Your task to perform on an android device: open sync settings in chrome Image 0: 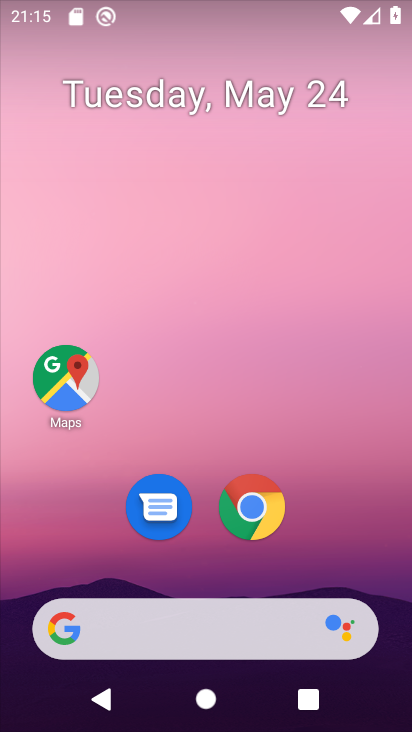
Step 0: drag from (197, 561) to (203, 122)
Your task to perform on an android device: open sync settings in chrome Image 1: 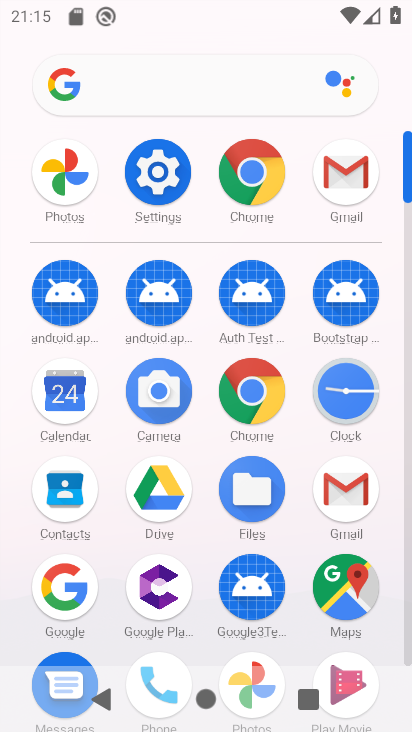
Step 1: click (246, 372)
Your task to perform on an android device: open sync settings in chrome Image 2: 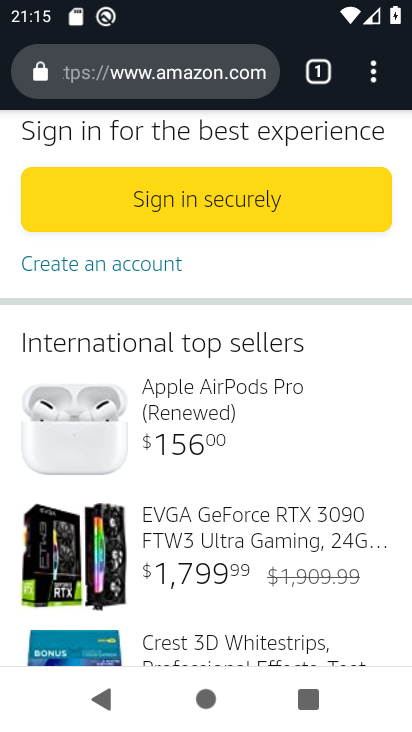
Step 2: drag from (250, 285) to (318, 592)
Your task to perform on an android device: open sync settings in chrome Image 3: 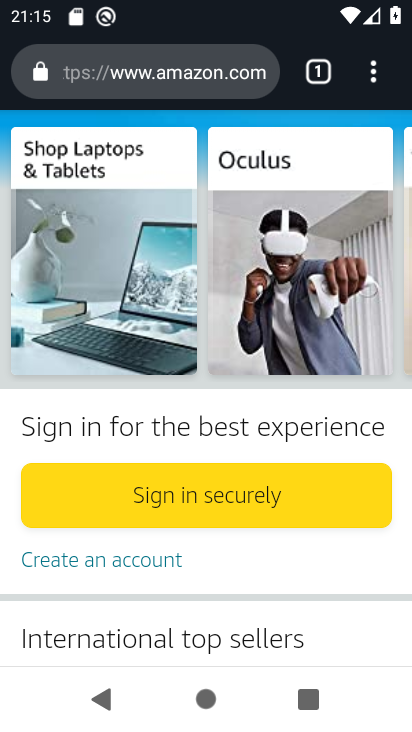
Step 3: click (376, 85)
Your task to perform on an android device: open sync settings in chrome Image 4: 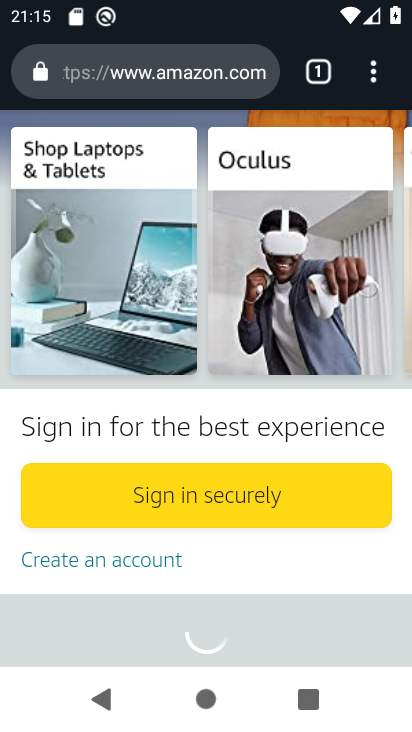
Step 4: click (375, 68)
Your task to perform on an android device: open sync settings in chrome Image 5: 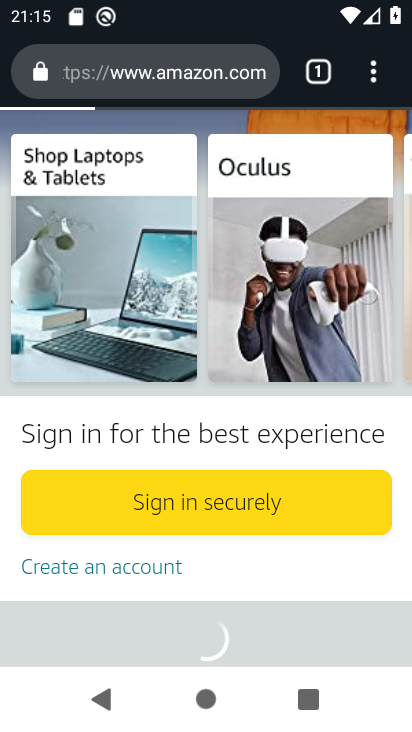
Step 5: click (375, 68)
Your task to perform on an android device: open sync settings in chrome Image 6: 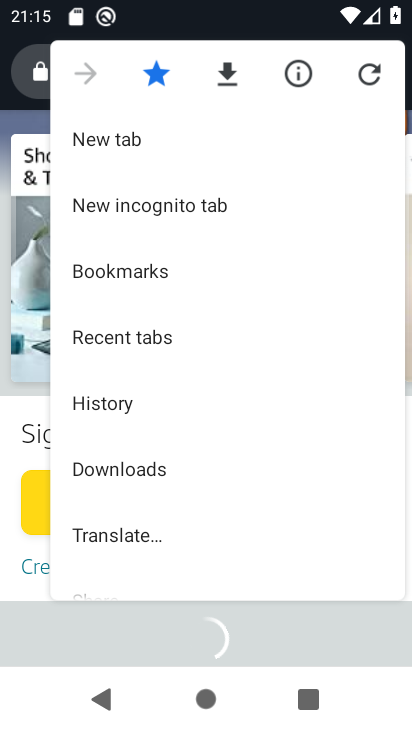
Step 6: drag from (199, 514) to (282, 204)
Your task to perform on an android device: open sync settings in chrome Image 7: 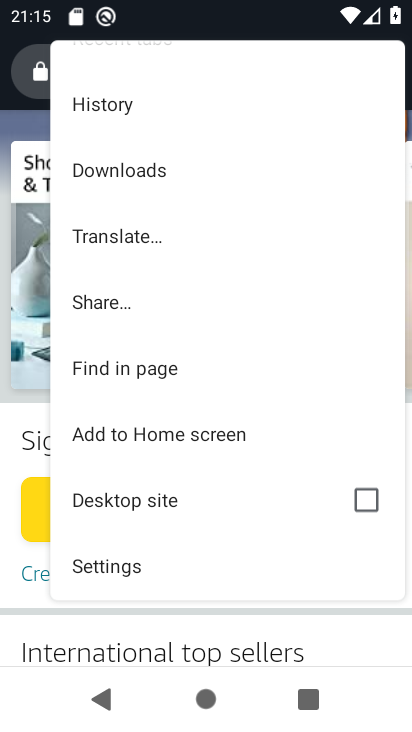
Step 7: click (151, 557)
Your task to perform on an android device: open sync settings in chrome Image 8: 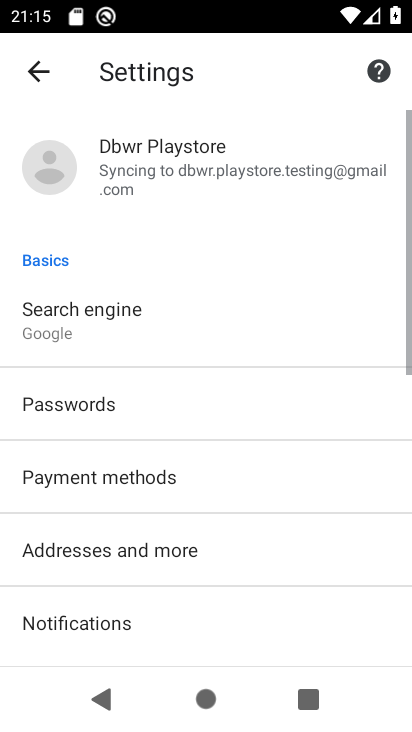
Step 8: drag from (273, 559) to (377, 97)
Your task to perform on an android device: open sync settings in chrome Image 9: 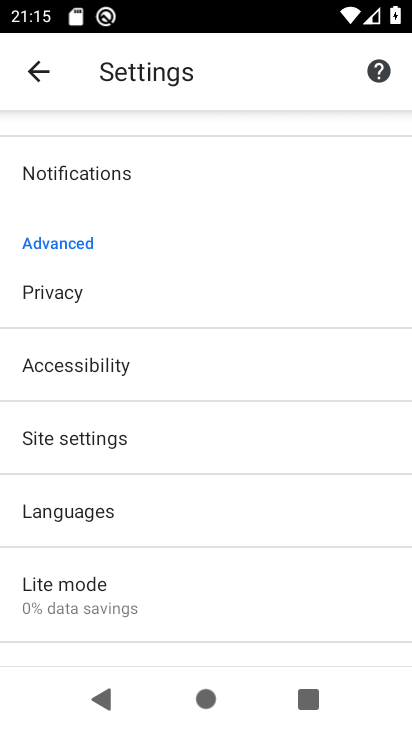
Step 9: click (112, 424)
Your task to perform on an android device: open sync settings in chrome Image 10: 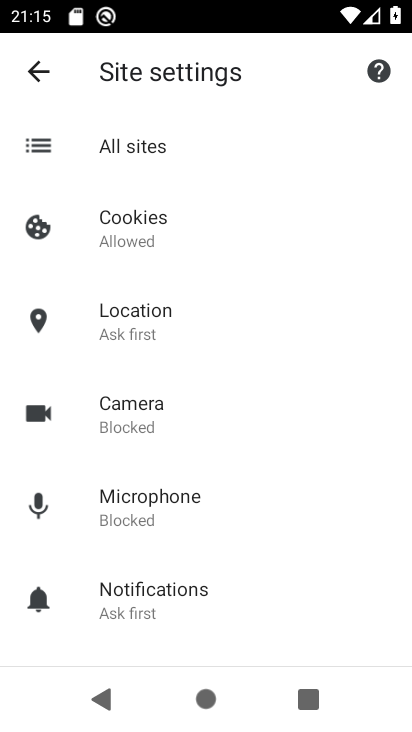
Step 10: drag from (242, 539) to (407, 65)
Your task to perform on an android device: open sync settings in chrome Image 11: 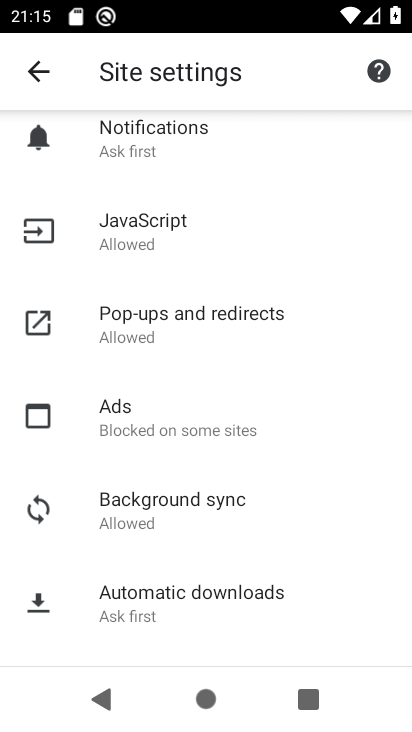
Step 11: click (193, 502)
Your task to perform on an android device: open sync settings in chrome Image 12: 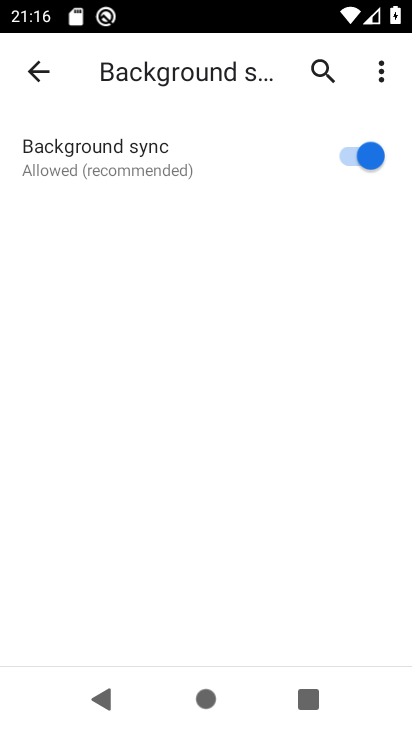
Step 12: task complete